Your task to perform on an android device: Go to privacy settings Image 0: 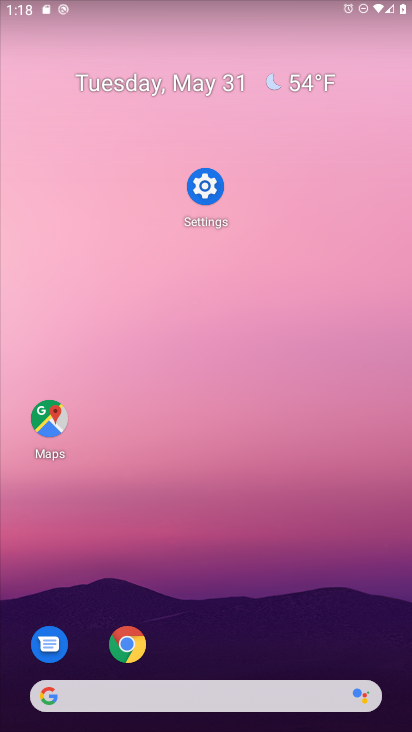
Step 0: press home button
Your task to perform on an android device: Go to privacy settings Image 1: 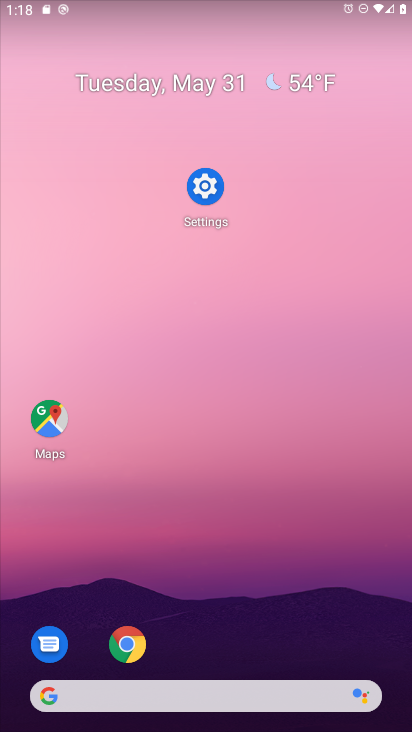
Step 1: click (210, 183)
Your task to perform on an android device: Go to privacy settings Image 2: 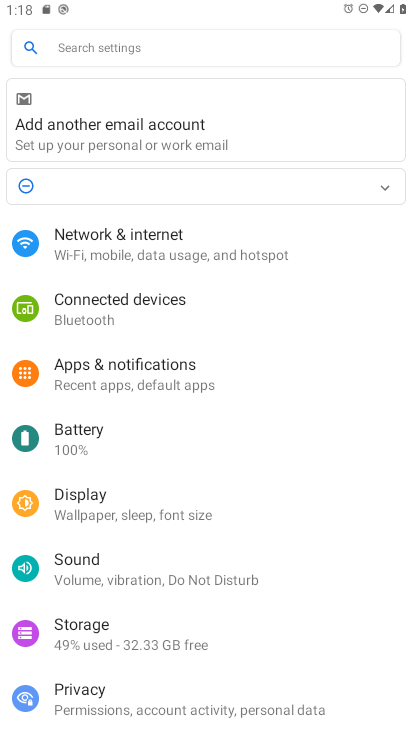
Step 2: click (80, 692)
Your task to perform on an android device: Go to privacy settings Image 3: 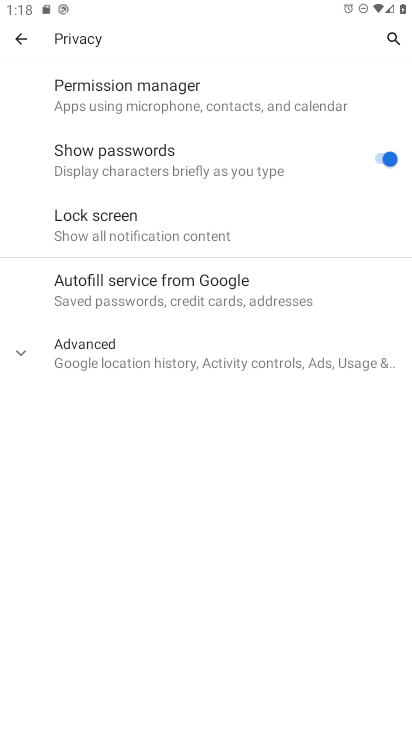
Step 3: task complete